Your task to perform on an android device: Open Yahoo.com Image 0: 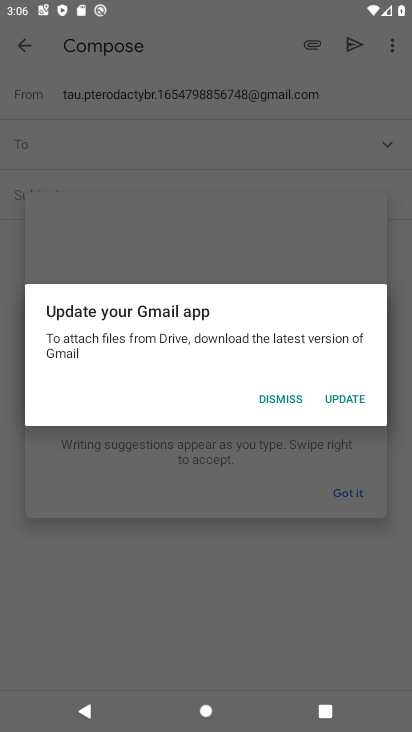
Step 0: press home button
Your task to perform on an android device: Open Yahoo.com Image 1: 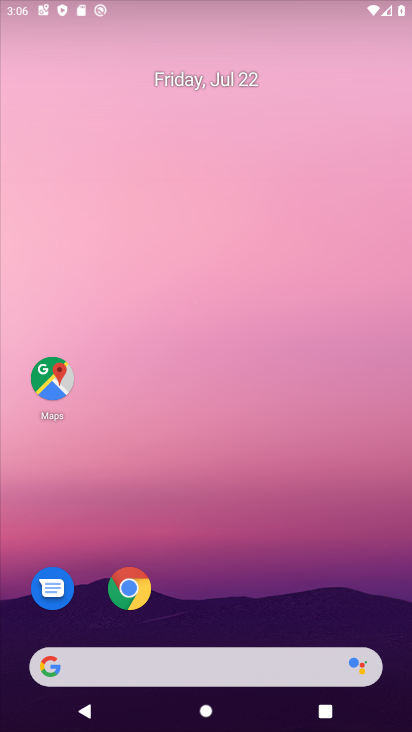
Step 1: drag from (190, 647) to (250, 215)
Your task to perform on an android device: Open Yahoo.com Image 2: 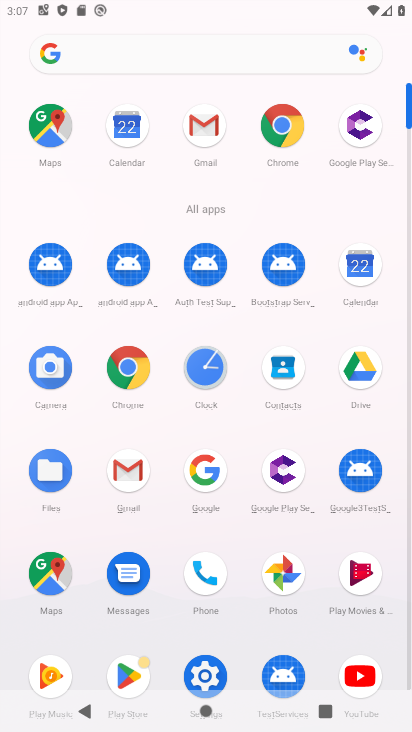
Step 2: click (284, 126)
Your task to perform on an android device: Open Yahoo.com Image 3: 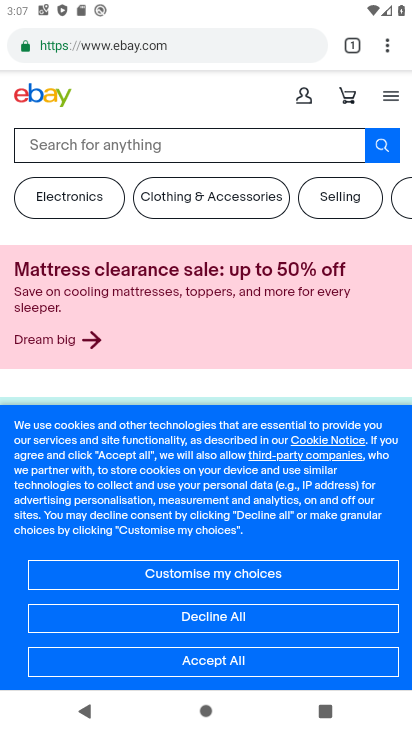
Step 3: click (350, 48)
Your task to perform on an android device: Open Yahoo.com Image 4: 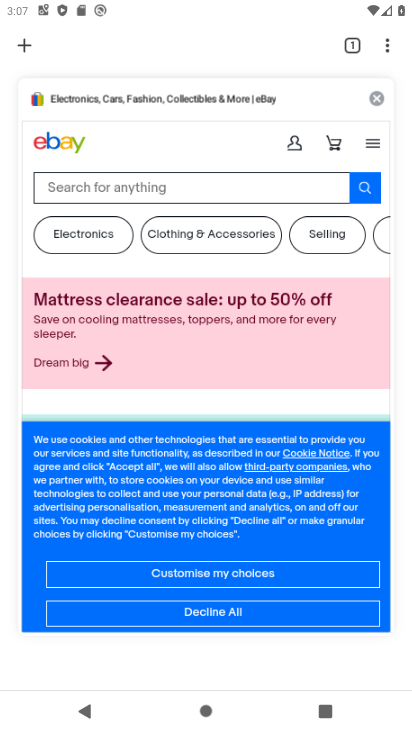
Step 4: click (381, 95)
Your task to perform on an android device: Open Yahoo.com Image 5: 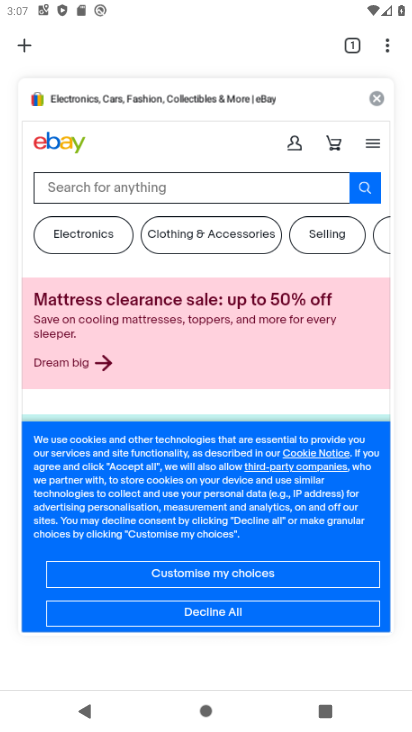
Step 5: click (374, 99)
Your task to perform on an android device: Open Yahoo.com Image 6: 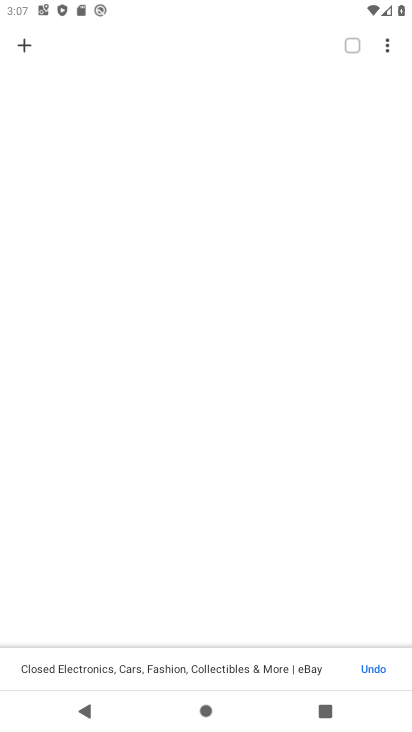
Step 6: click (16, 43)
Your task to perform on an android device: Open Yahoo.com Image 7: 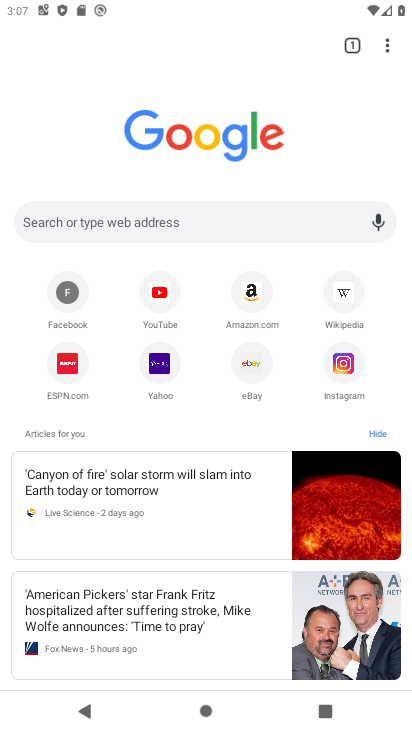
Step 7: click (153, 359)
Your task to perform on an android device: Open Yahoo.com Image 8: 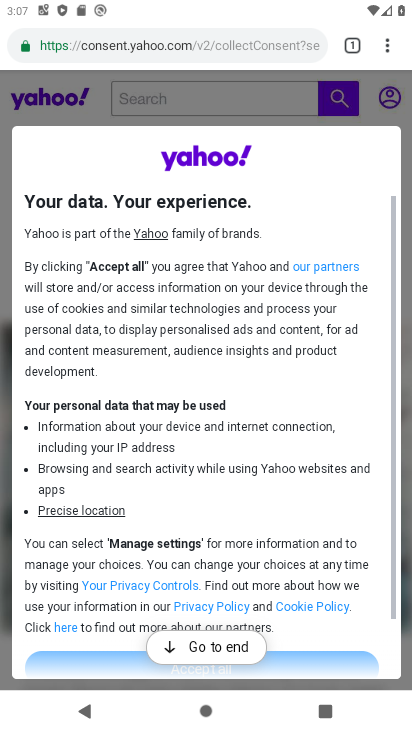
Step 8: task complete